Your task to perform on an android device: turn pop-ups on in chrome Image 0: 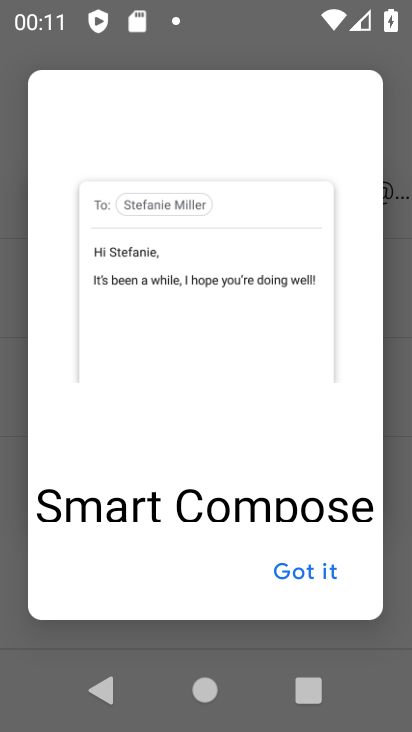
Step 0: click (309, 570)
Your task to perform on an android device: turn pop-ups on in chrome Image 1: 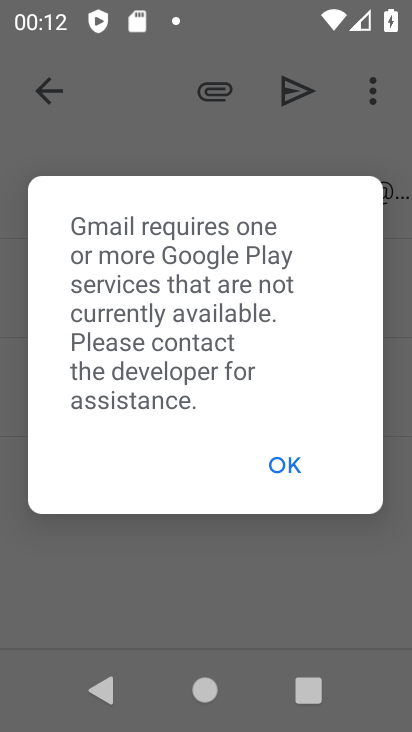
Step 1: click (280, 468)
Your task to perform on an android device: turn pop-ups on in chrome Image 2: 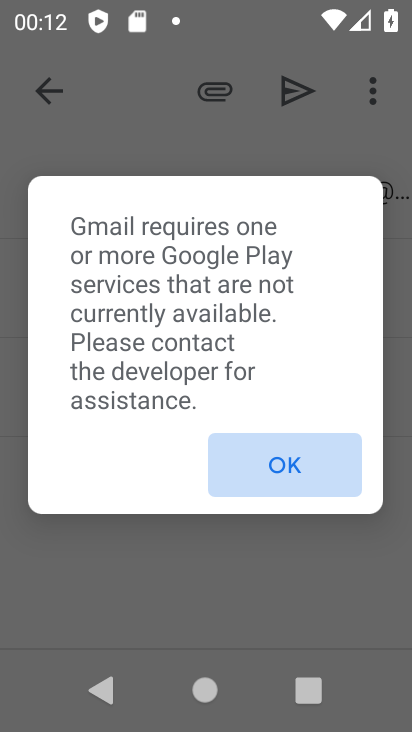
Step 2: click (279, 467)
Your task to perform on an android device: turn pop-ups on in chrome Image 3: 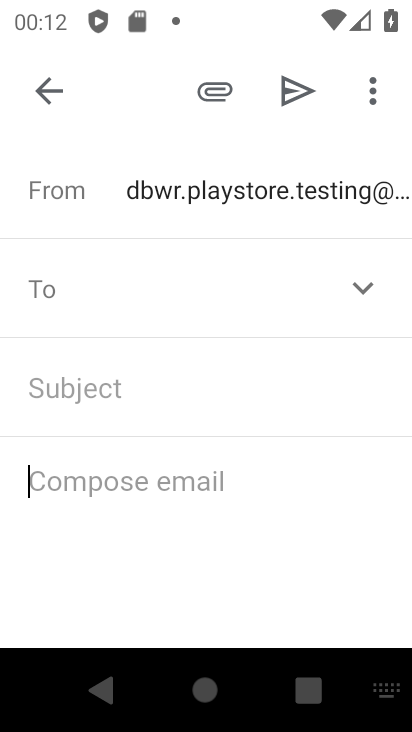
Step 3: click (47, 87)
Your task to perform on an android device: turn pop-ups on in chrome Image 4: 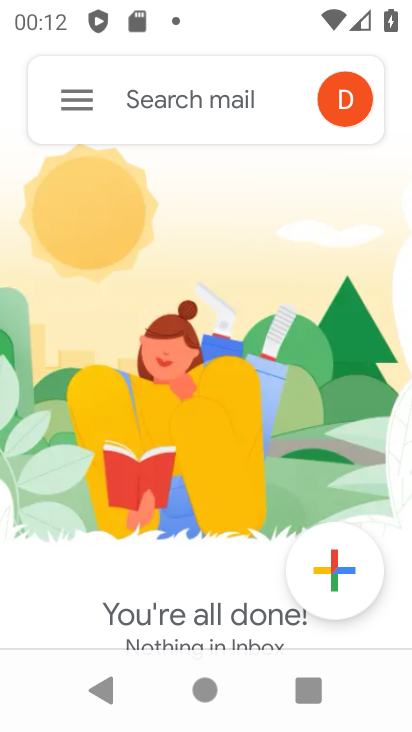
Step 4: press home button
Your task to perform on an android device: turn pop-ups on in chrome Image 5: 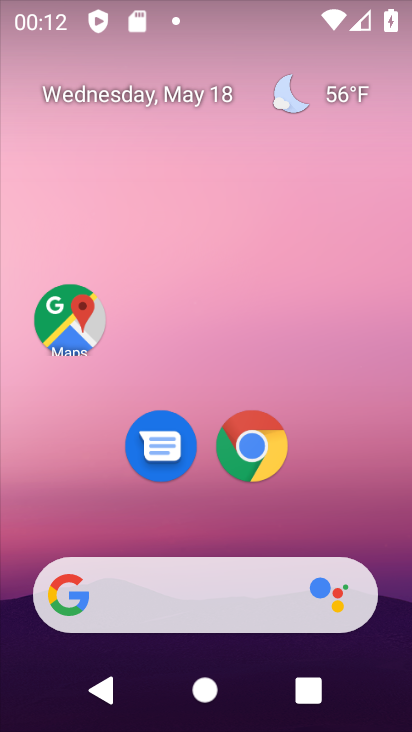
Step 5: drag from (370, 633) to (221, 102)
Your task to perform on an android device: turn pop-ups on in chrome Image 6: 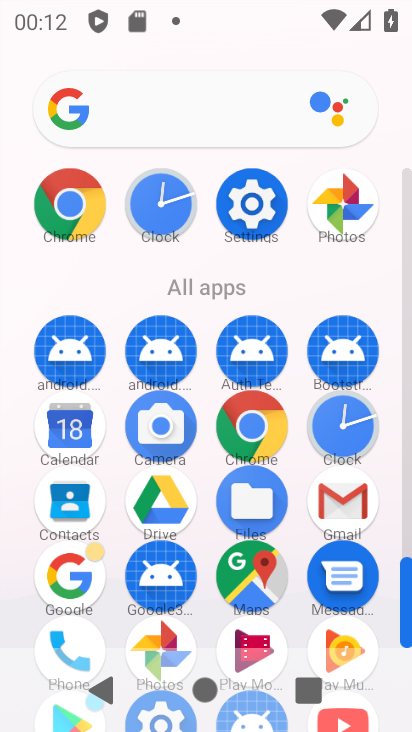
Step 6: click (260, 409)
Your task to perform on an android device: turn pop-ups on in chrome Image 7: 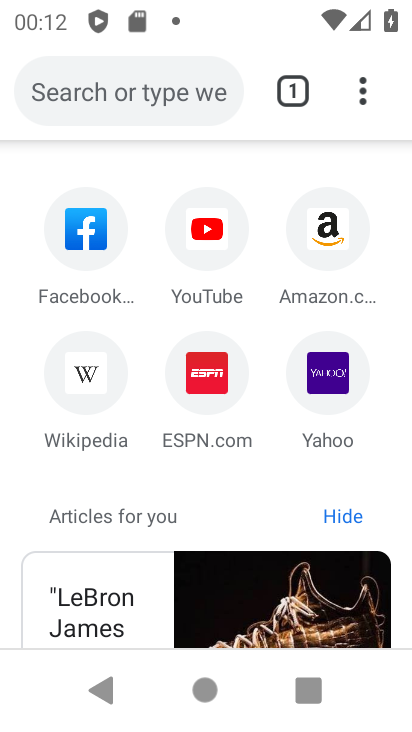
Step 7: drag from (359, 91) to (91, 466)
Your task to perform on an android device: turn pop-ups on in chrome Image 8: 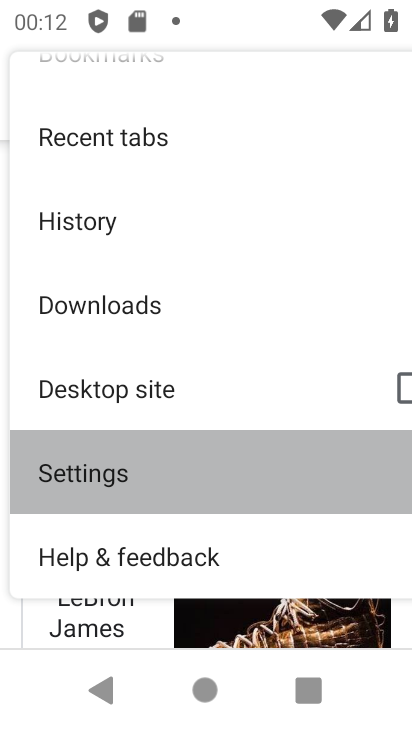
Step 8: click (94, 466)
Your task to perform on an android device: turn pop-ups on in chrome Image 9: 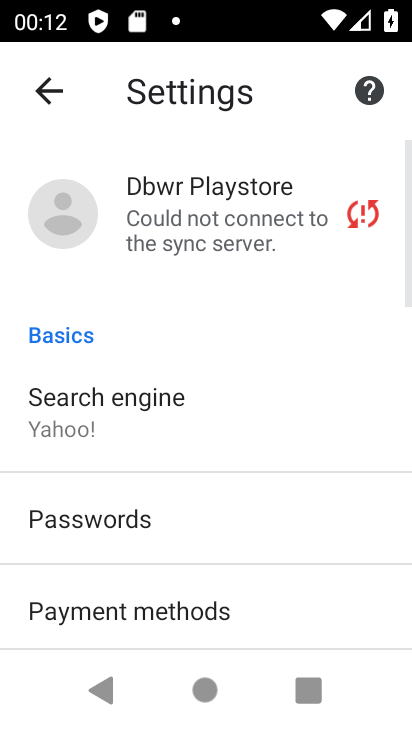
Step 9: drag from (265, 479) to (269, 156)
Your task to perform on an android device: turn pop-ups on in chrome Image 10: 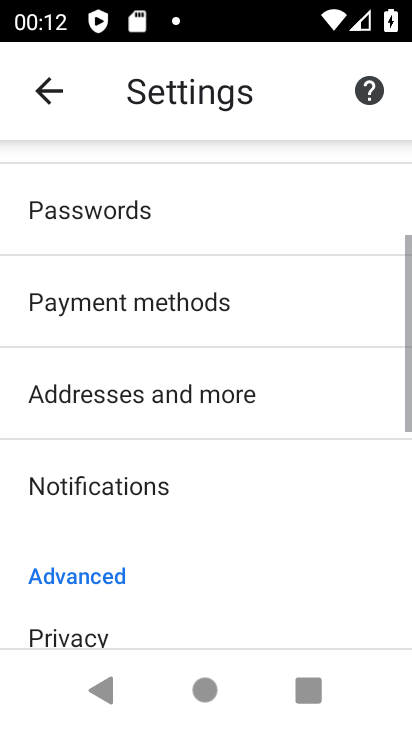
Step 10: drag from (209, 371) to (215, 234)
Your task to perform on an android device: turn pop-ups on in chrome Image 11: 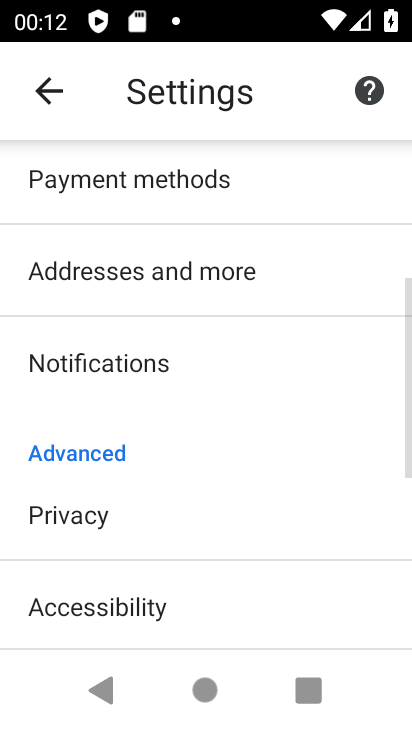
Step 11: drag from (209, 384) to (209, 307)
Your task to perform on an android device: turn pop-ups on in chrome Image 12: 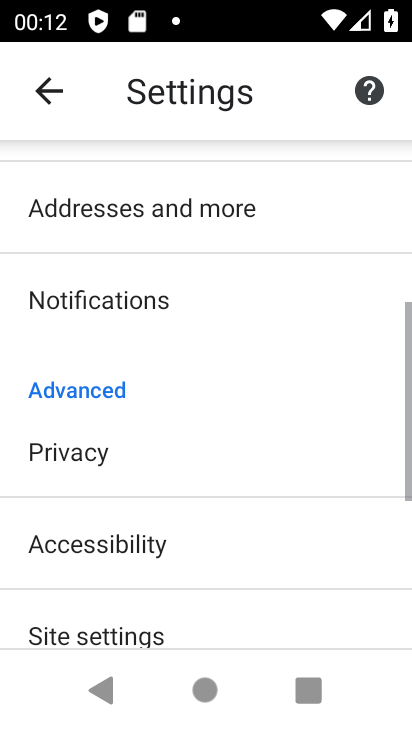
Step 12: drag from (215, 302) to (215, 176)
Your task to perform on an android device: turn pop-ups on in chrome Image 13: 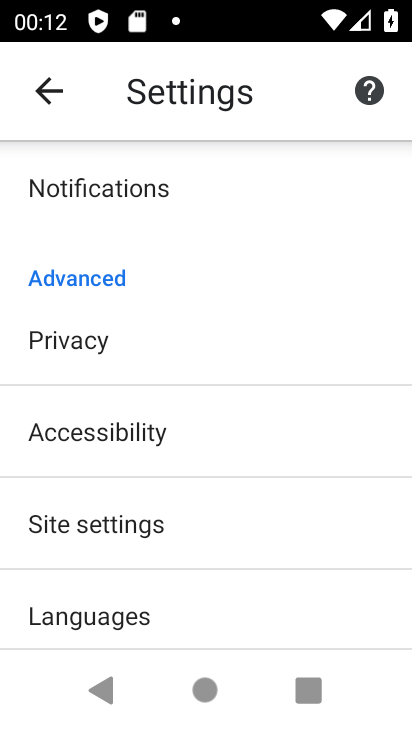
Step 13: click (87, 522)
Your task to perform on an android device: turn pop-ups on in chrome Image 14: 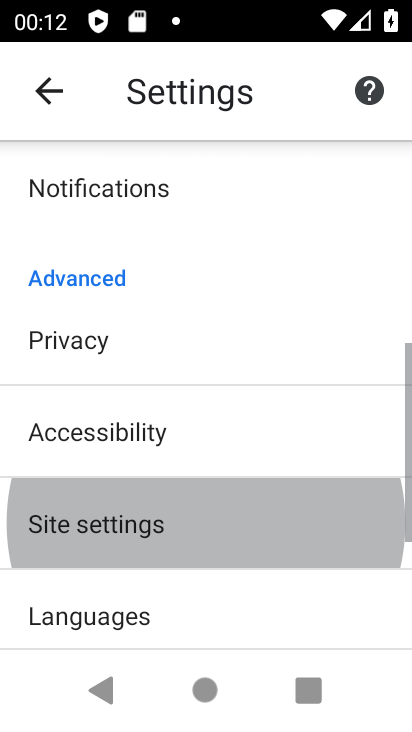
Step 14: click (89, 520)
Your task to perform on an android device: turn pop-ups on in chrome Image 15: 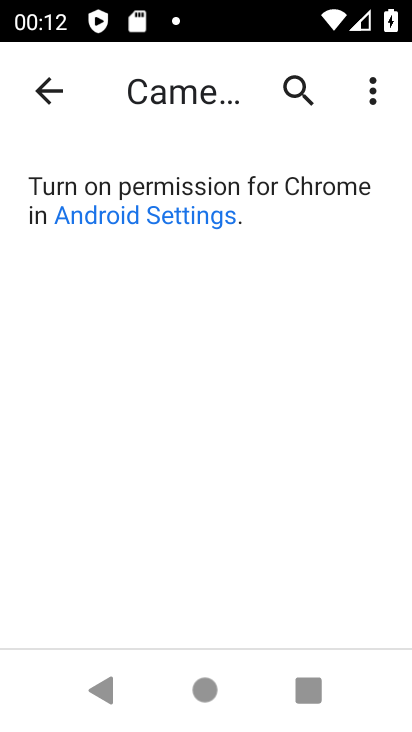
Step 15: click (59, 81)
Your task to perform on an android device: turn pop-ups on in chrome Image 16: 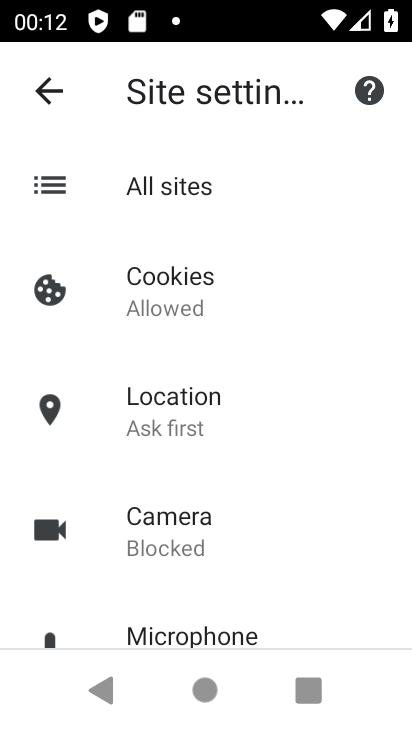
Step 16: drag from (250, 494) to (255, 156)
Your task to perform on an android device: turn pop-ups on in chrome Image 17: 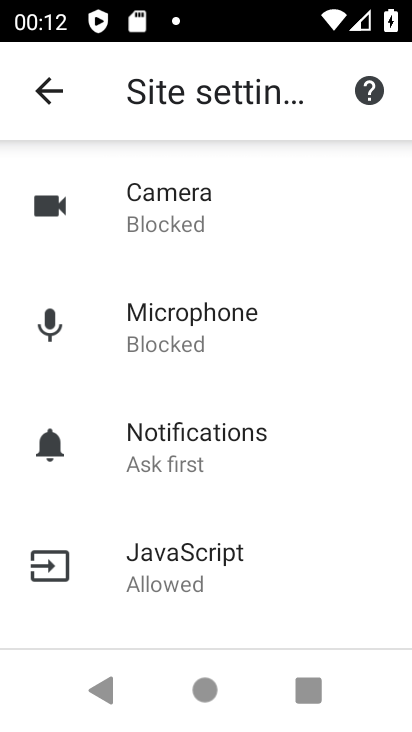
Step 17: drag from (241, 520) to (182, 245)
Your task to perform on an android device: turn pop-ups on in chrome Image 18: 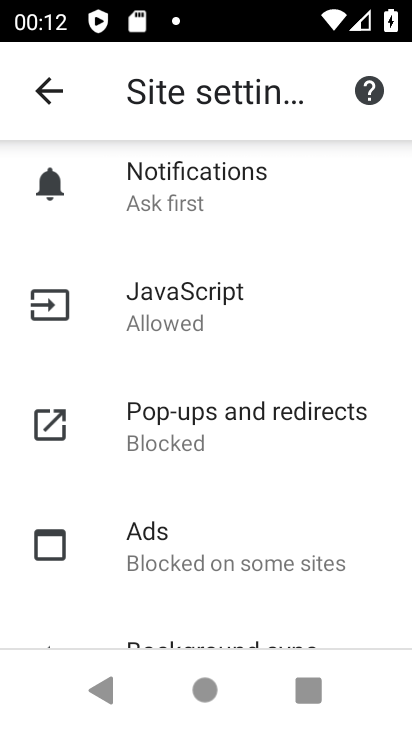
Step 18: click (188, 422)
Your task to perform on an android device: turn pop-ups on in chrome Image 19: 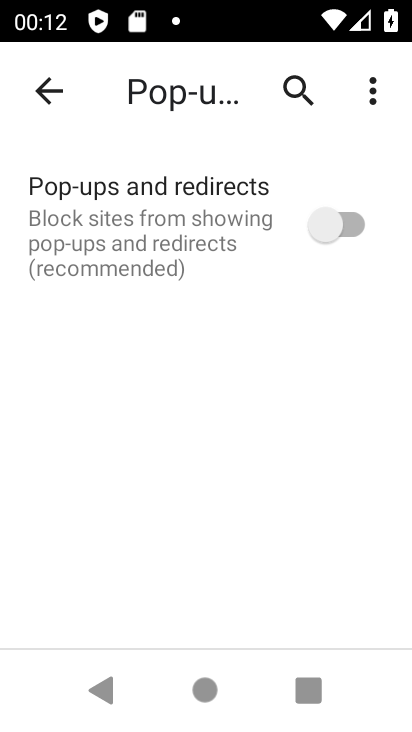
Step 19: click (316, 227)
Your task to perform on an android device: turn pop-ups on in chrome Image 20: 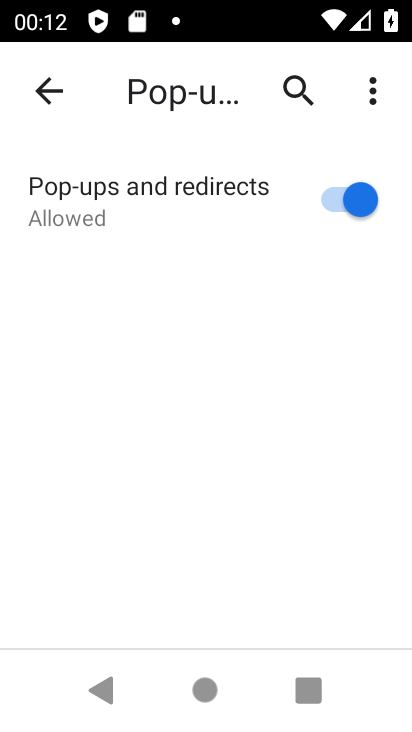
Step 20: task complete